Your task to perform on an android device: turn off smart reply in the gmail app Image 0: 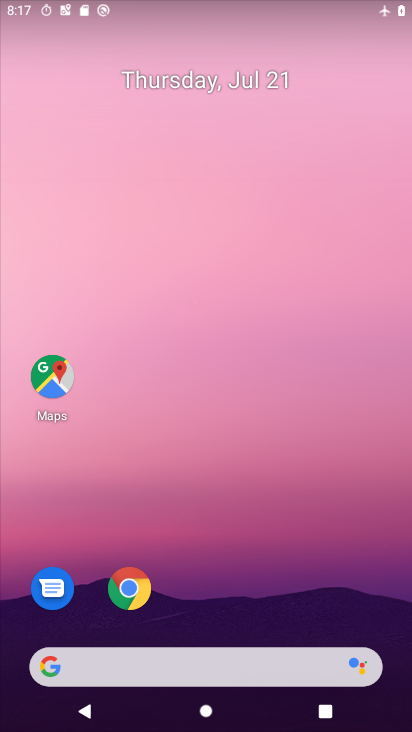
Step 0: drag from (206, 654) to (142, 191)
Your task to perform on an android device: turn off smart reply in the gmail app Image 1: 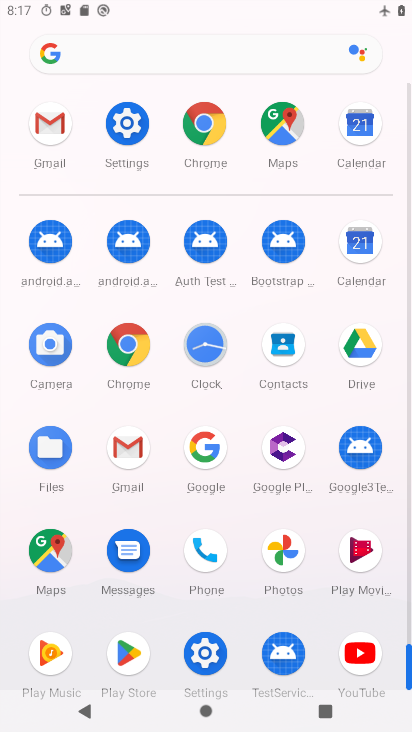
Step 1: click (134, 441)
Your task to perform on an android device: turn off smart reply in the gmail app Image 2: 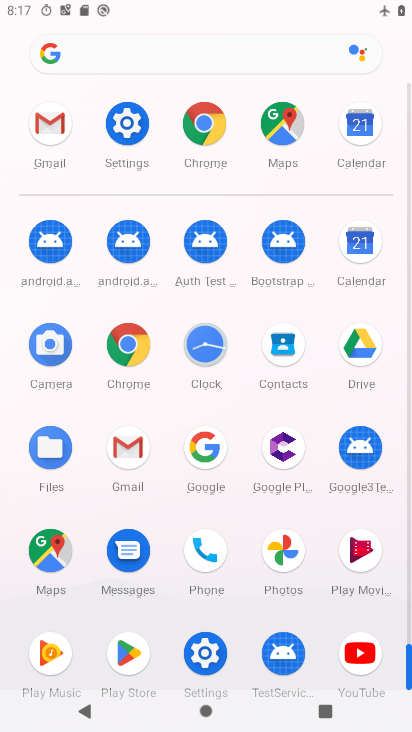
Step 2: click (133, 443)
Your task to perform on an android device: turn off smart reply in the gmail app Image 3: 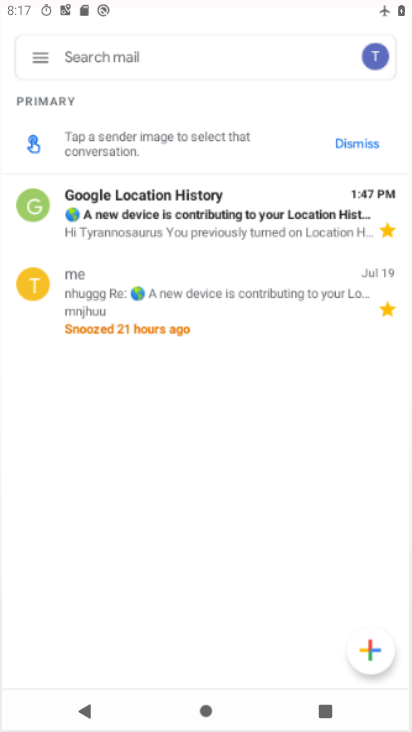
Step 3: click (135, 443)
Your task to perform on an android device: turn off smart reply in the gmail app Image 4: 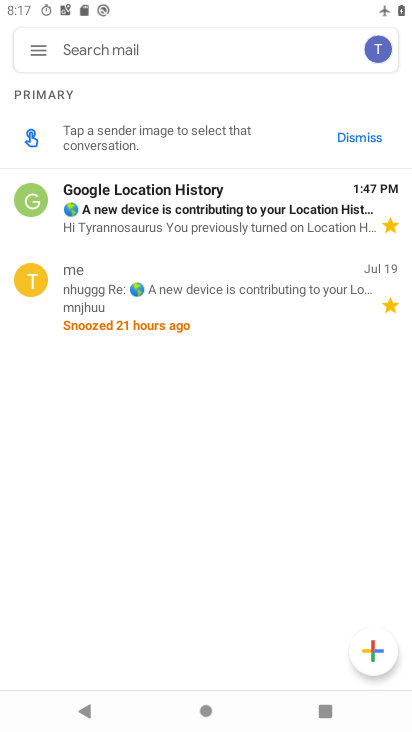
Step 4: click (37, 54)
Your task to perform on an android device: turn off smart reply in the gmail app Image 5: 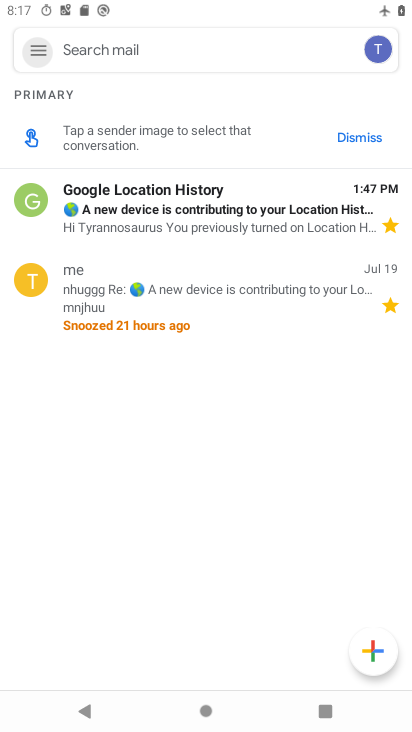
Step 5: click (37, 54)
Your task to perform on an android device: turn off smart reply in the gmail app Image 6: 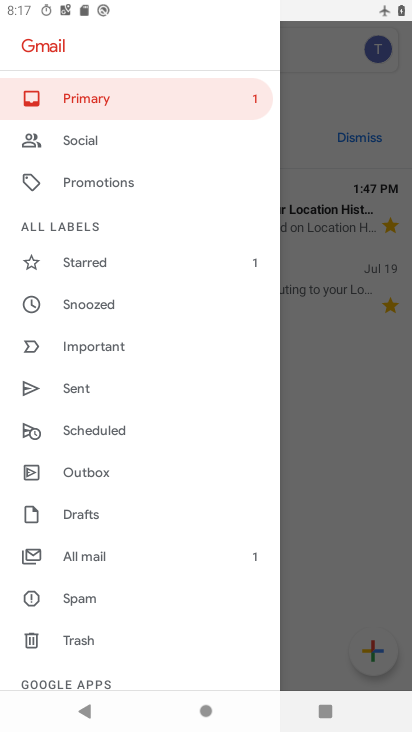
Step 6: drag from (87, 611) to (103, 160)
Your task to perform on an android device: turn off smart reply in the gmail app Image 7: 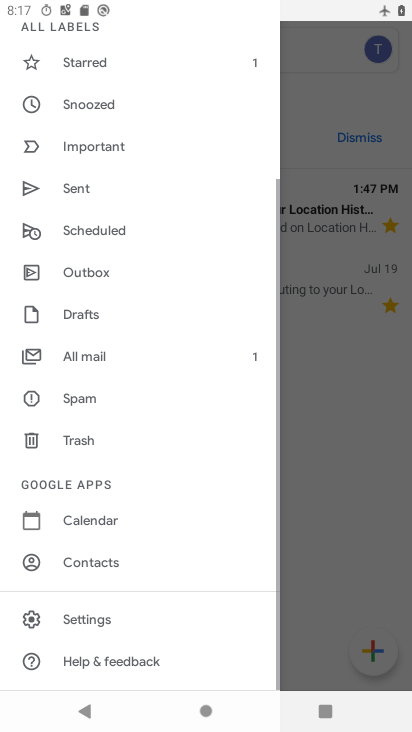
Step 7: drag from (100, 514) to (116, 230)
Your task to perform on an android device: turn off smart reply in the gmail app Image 8: 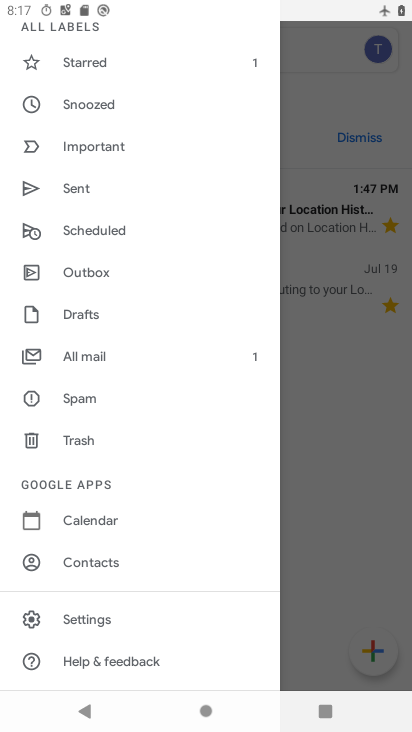
Step 8: click (84, 613)
Your task to perform on an android device: turn off smart reply in the gmail app Image 9: 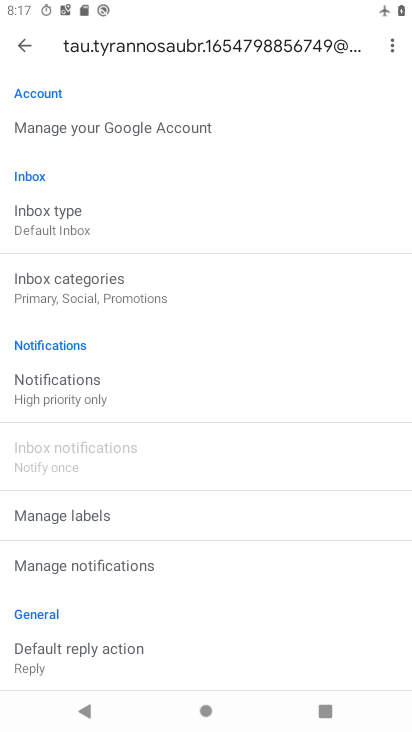
Step 9: drag from (127, 586) to (185, 180)
Your task to perform on an android device: turn off smart reply in the gmail app Image 10: 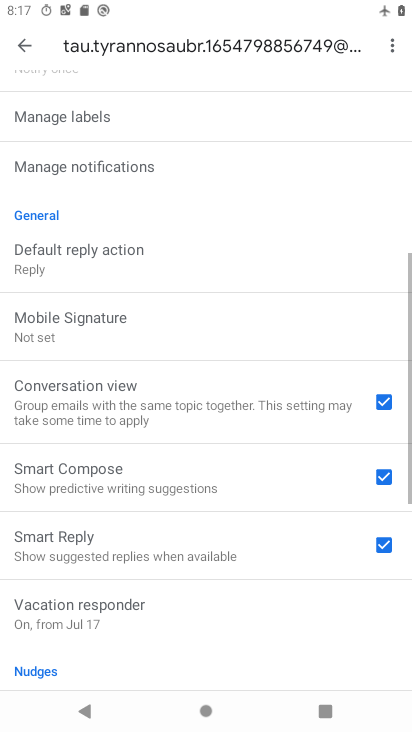
Step 10: drag from (175, 524) to (180, 218)
Your task to perform on an android device: turn off smart reply in the gmail app Image 11: 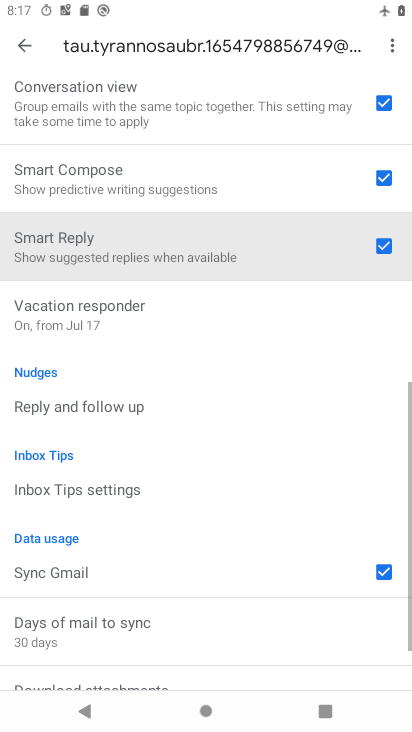
Step 11: drag from (160, 446) to (190, 197)
Your task to perform on an android device: turn off smart reply in the gmail app Image 12: 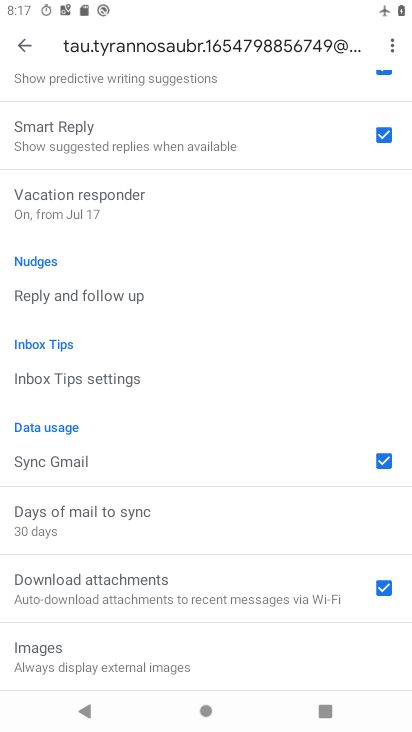
Step 12: click (389, 144)
Your task to perform on an android device: turn off smart reply in the gmail app Image 13: 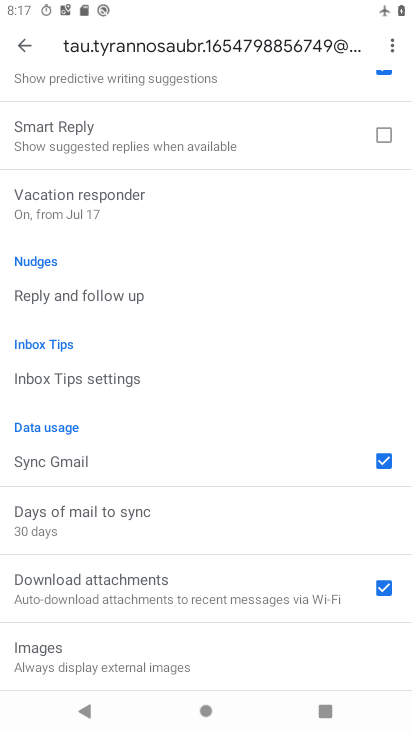
Step 13: task complete